Your task to perform on an android device: all mails in gmail Image 0: 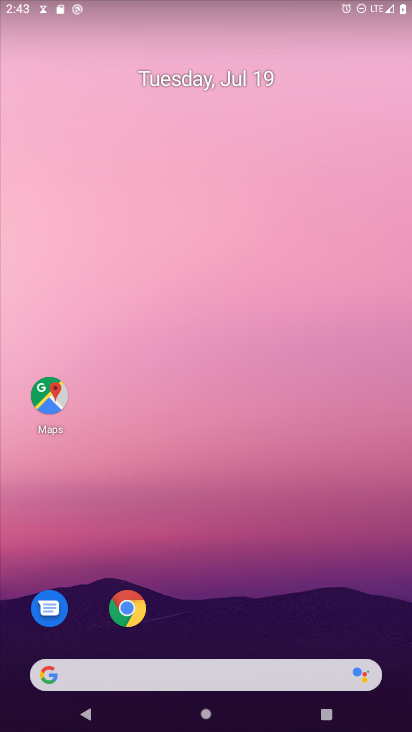
Step 0: drag from (307, 668) to (336, 0)
Your task to perform on an android device: all mails in gmail Image 1: 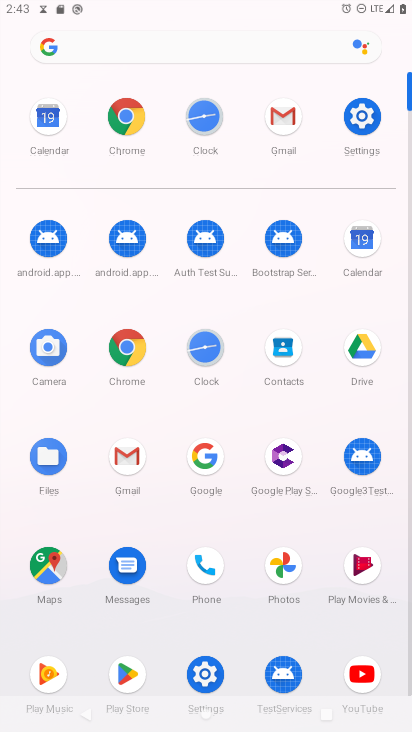
Step 1: click (116, 457)
Your task to perform on an android device: all mails in gmail Image 2: 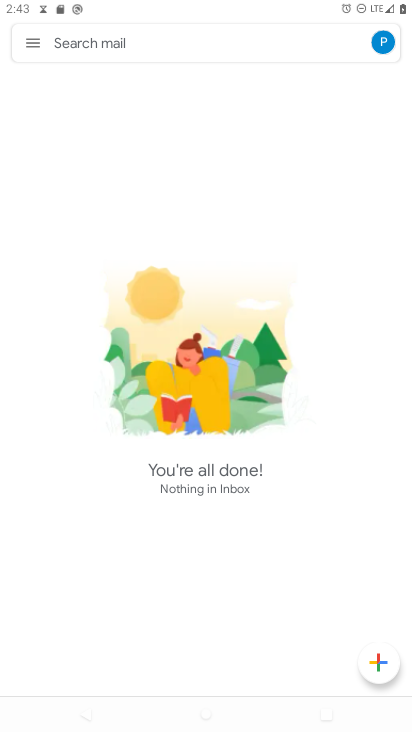
Step 2: click (31, 43)
Your task to perform on an android device: all mails in gmail Image 3: 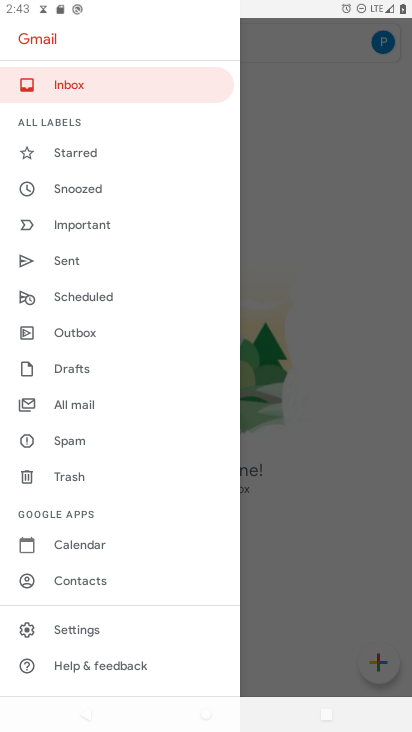
Step 3: click (89, 411)
Your task to perform on an android device: all mails in gmail Image 4: 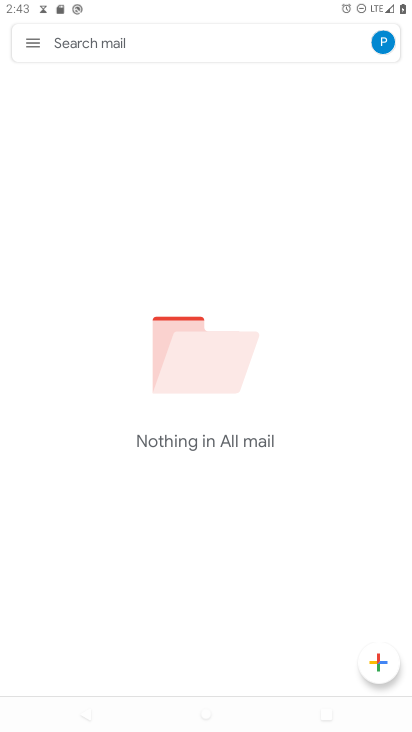
Step 4: task complete